Your task to perform on an android device: Go to Maps Image 0: 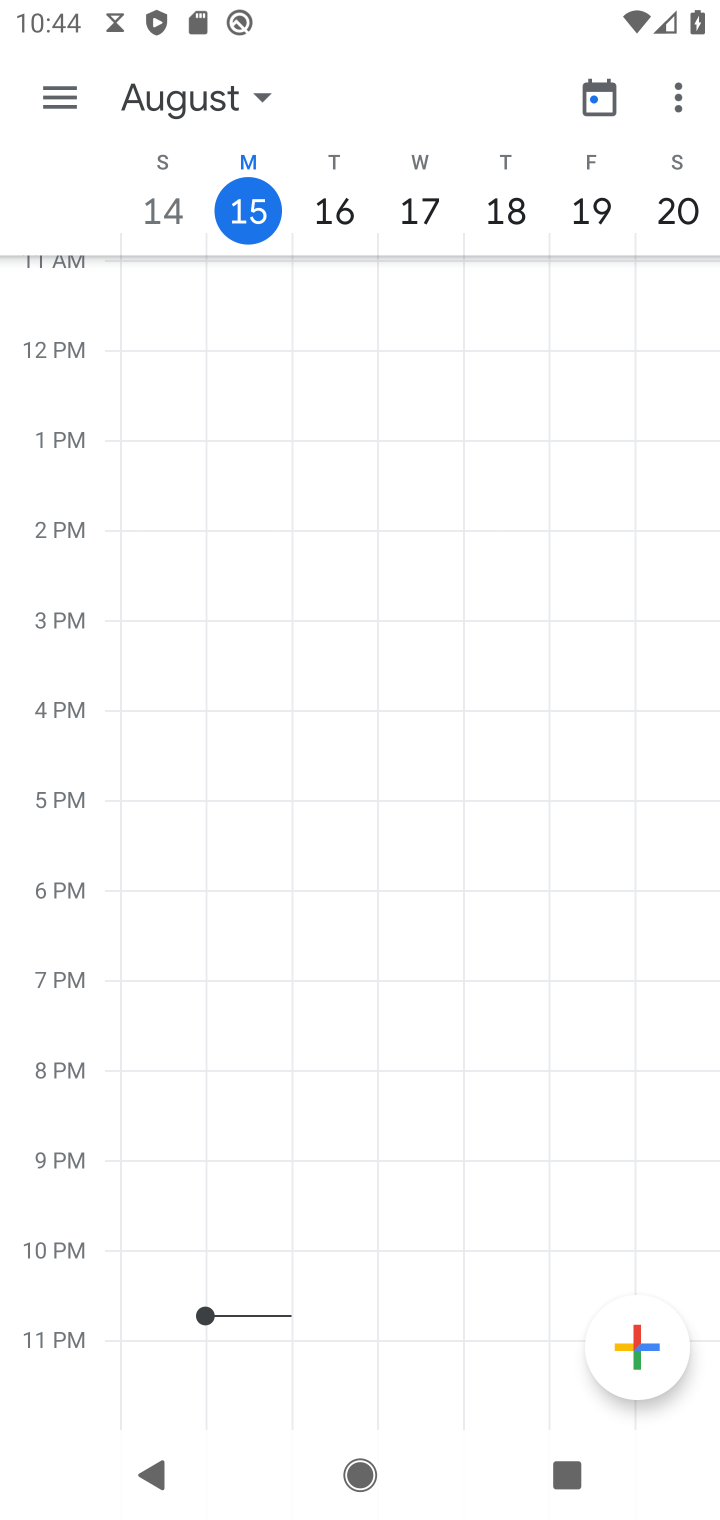
Step 0: press home button
Your task to perform on an android device: Go to Maps Image 1: 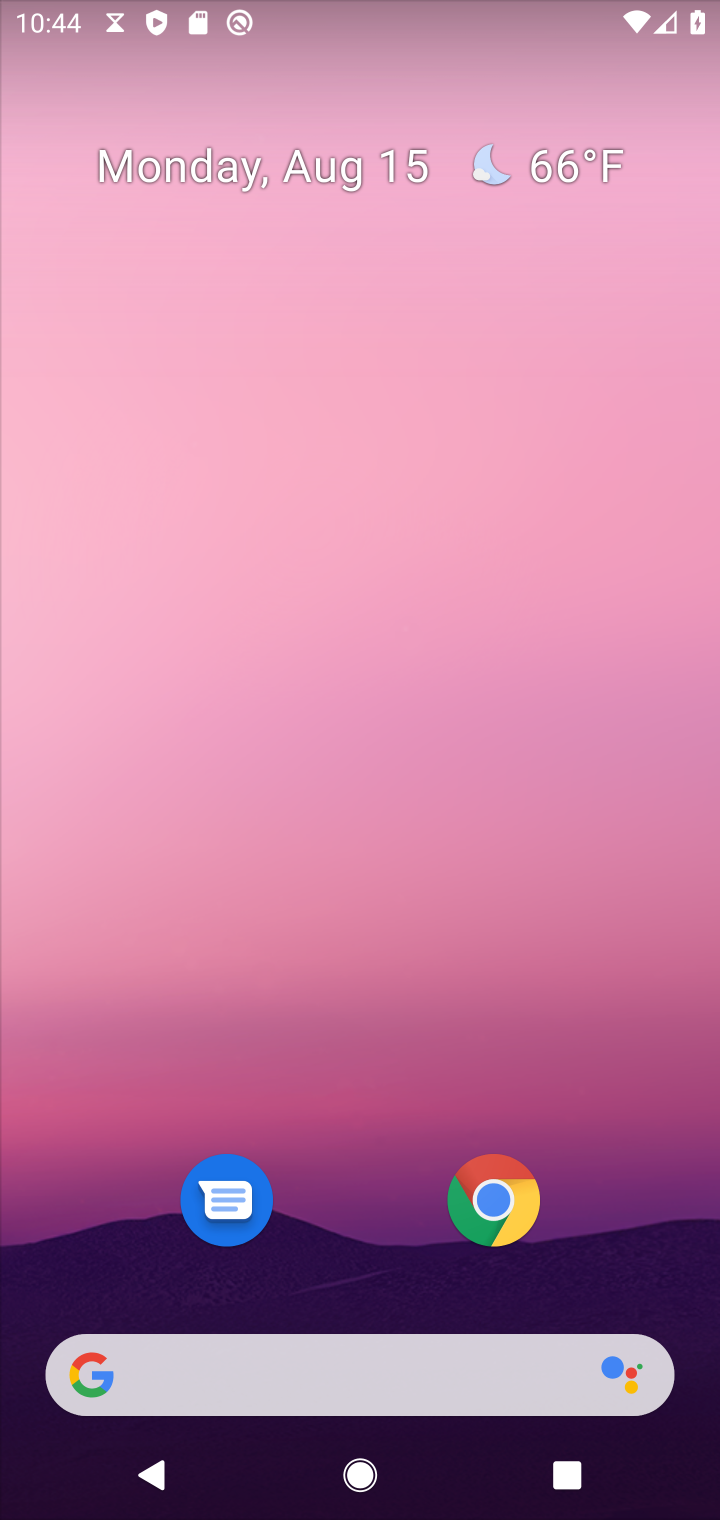
Step 1: drag from (389, 1092) to (716, 727)
Your task to perform on an android device: Go to Maps Image 2: 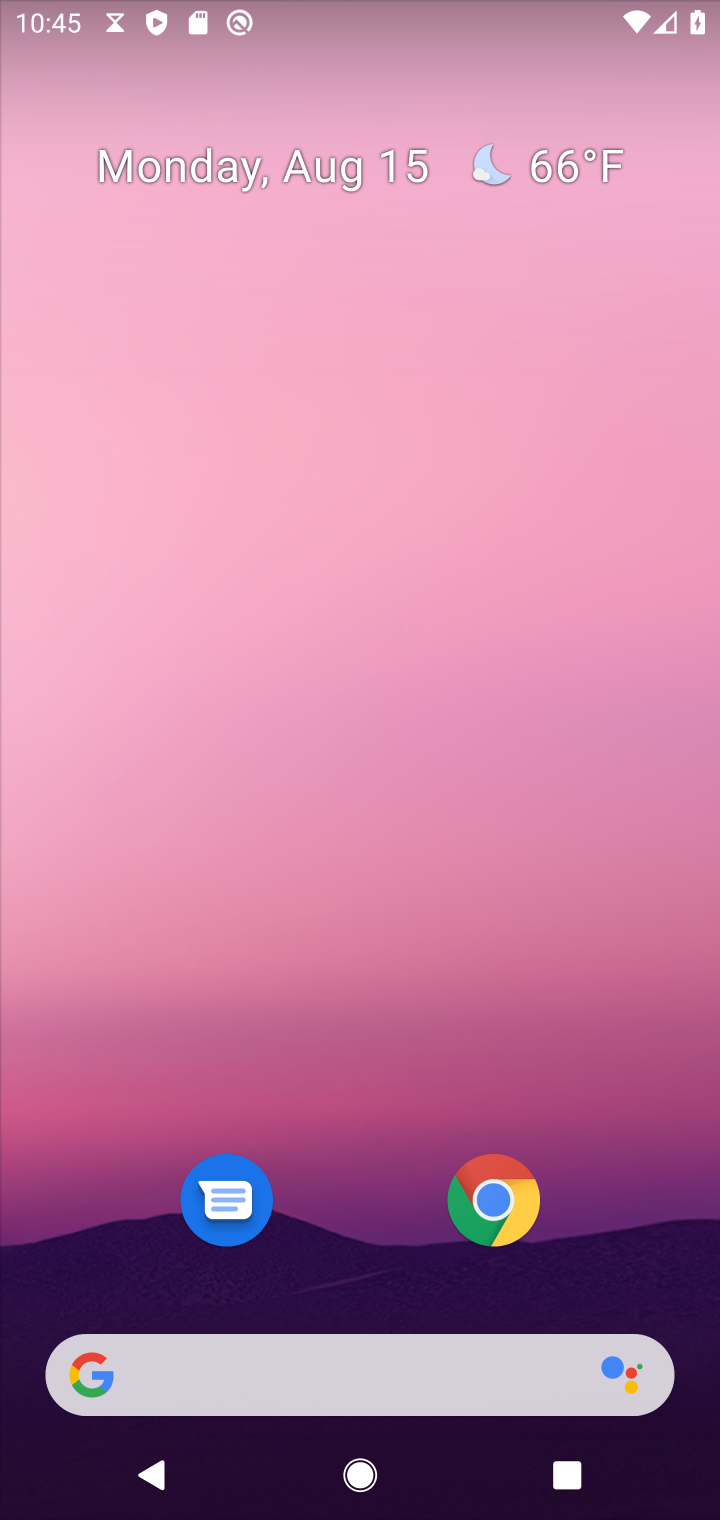
Step 2: drag from (330, 1339) to (350, 7)
Your task to perform on an android device: Go to Maps Image 3: 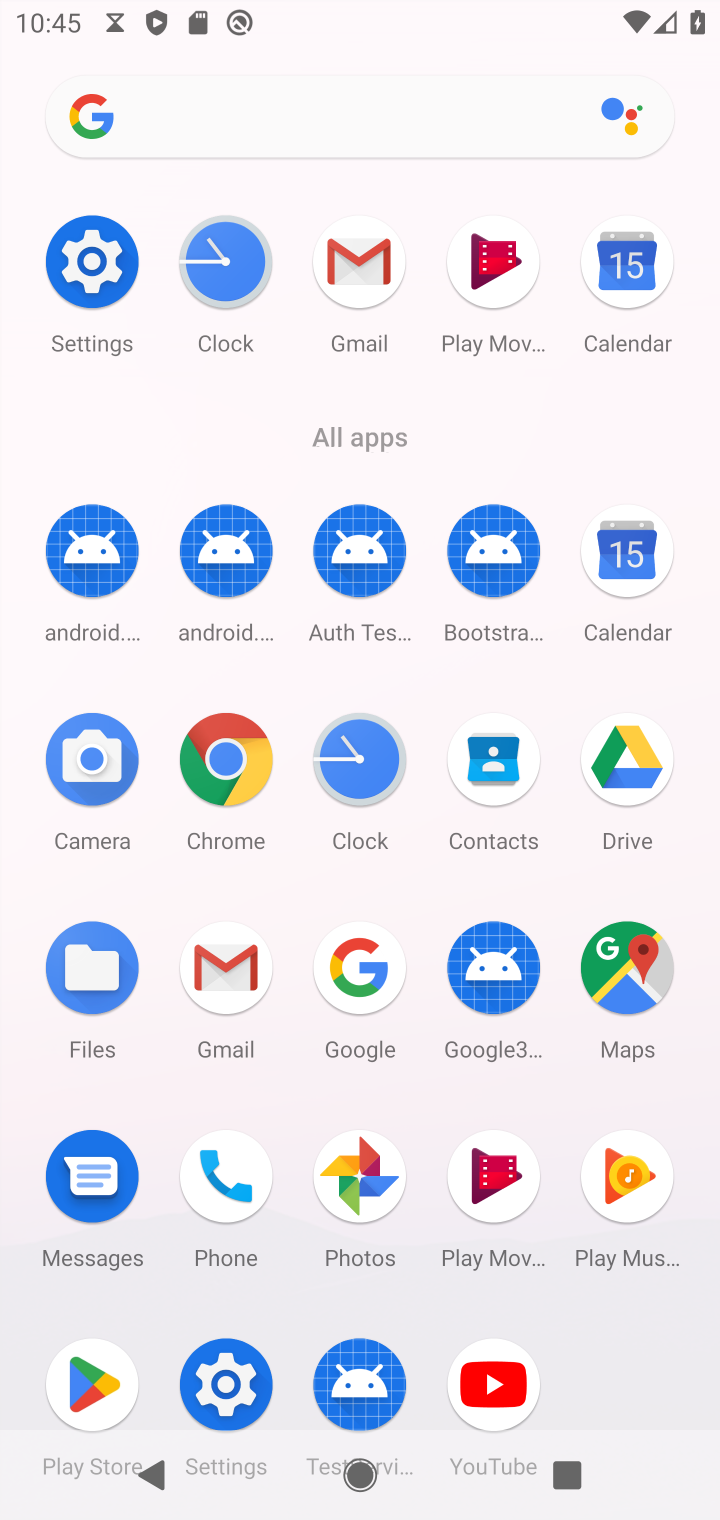
Step 3: click (606, 998)
Your task to perform on an android device: Go to Maps Image 4: 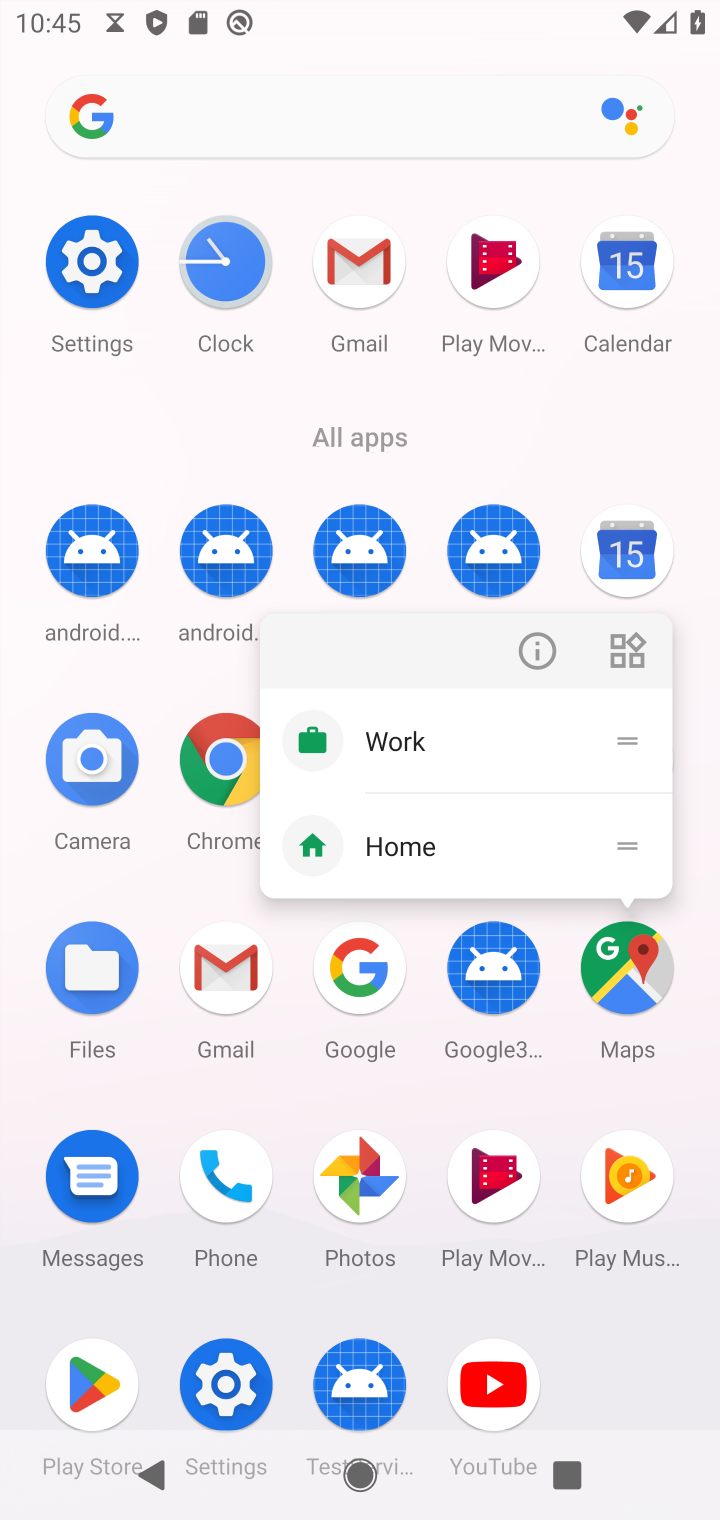
Step 4: click (612, 990)
Your task to perform on an android device: Go to Maps Image 5: 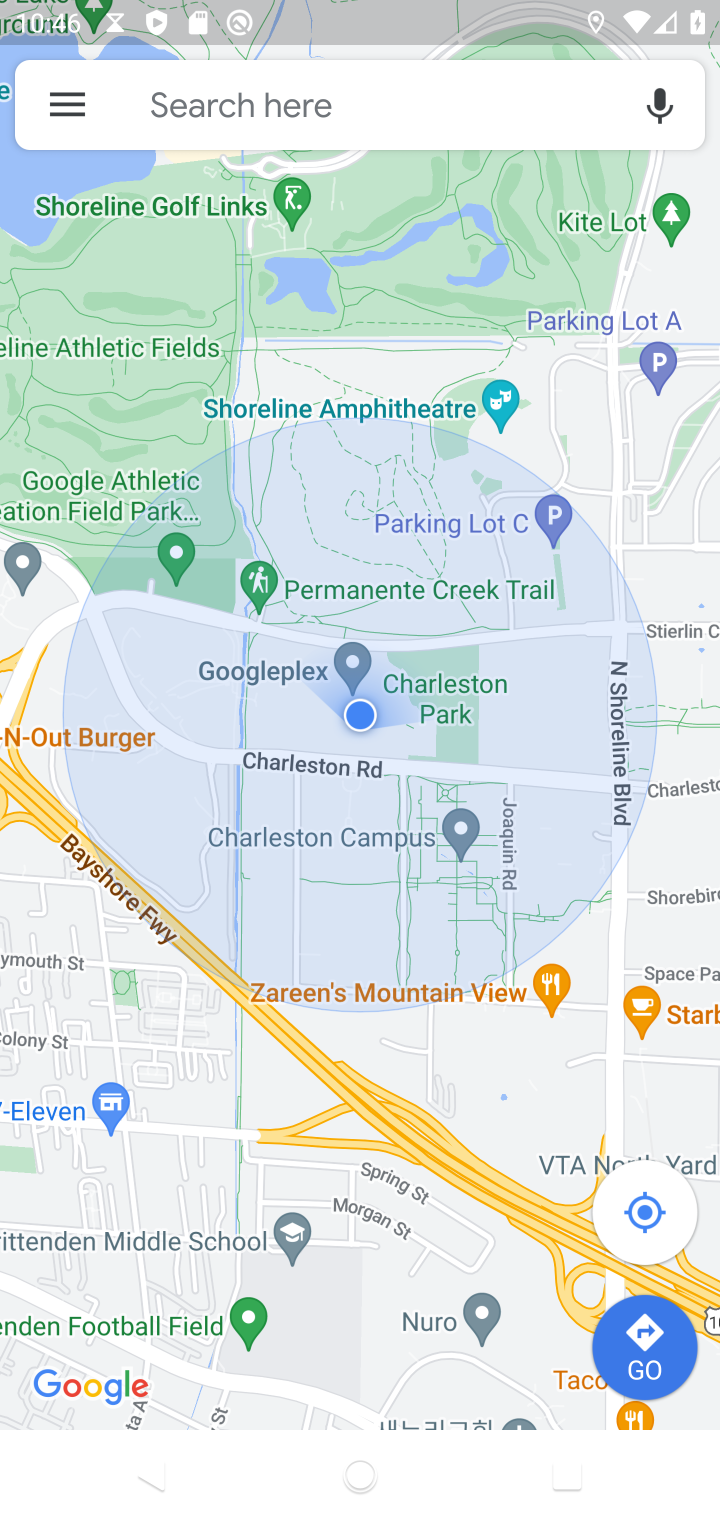
Step 5: task complete